Your task to perform on an android device: Open a new Chrome incognito window Image 0: 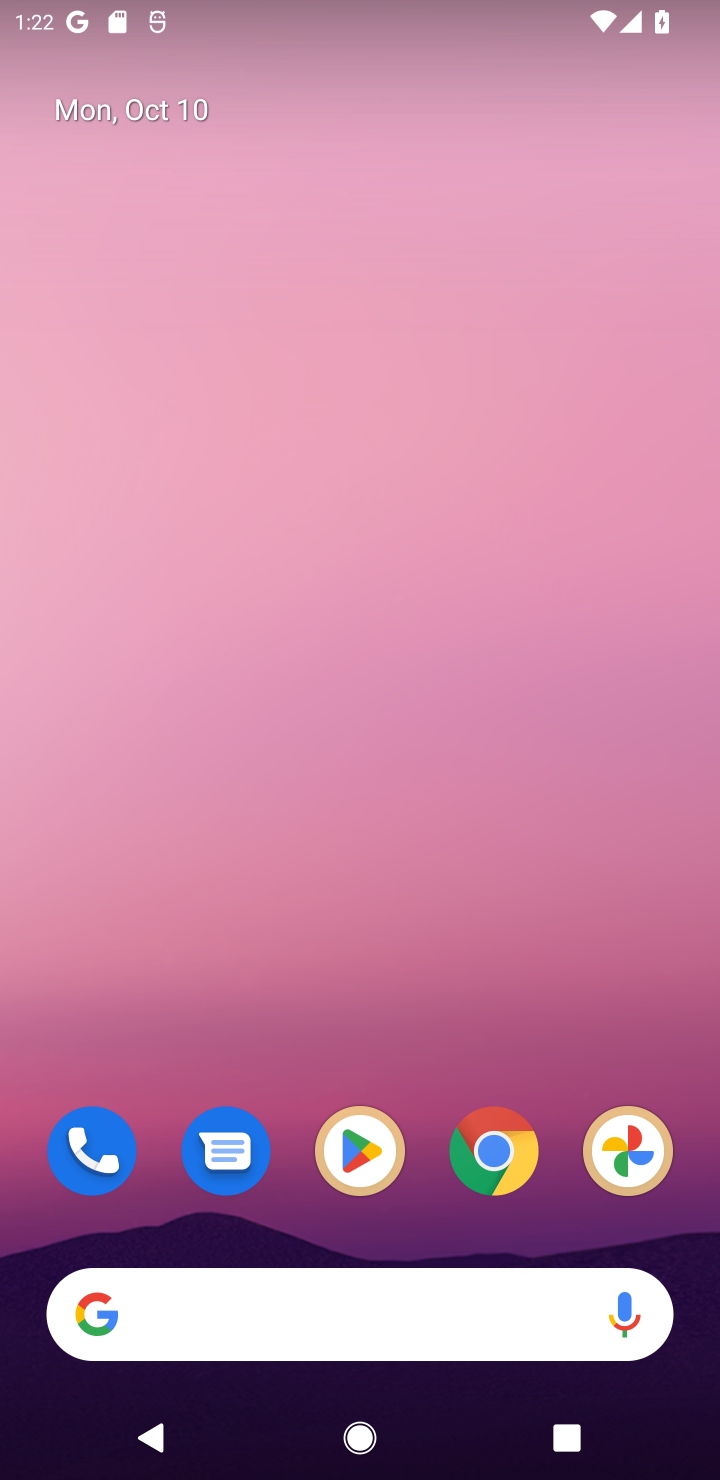
Step 0: click (475, 1146)
Your task to perform on an android device: Open a new Chrome incognito window Image 1: 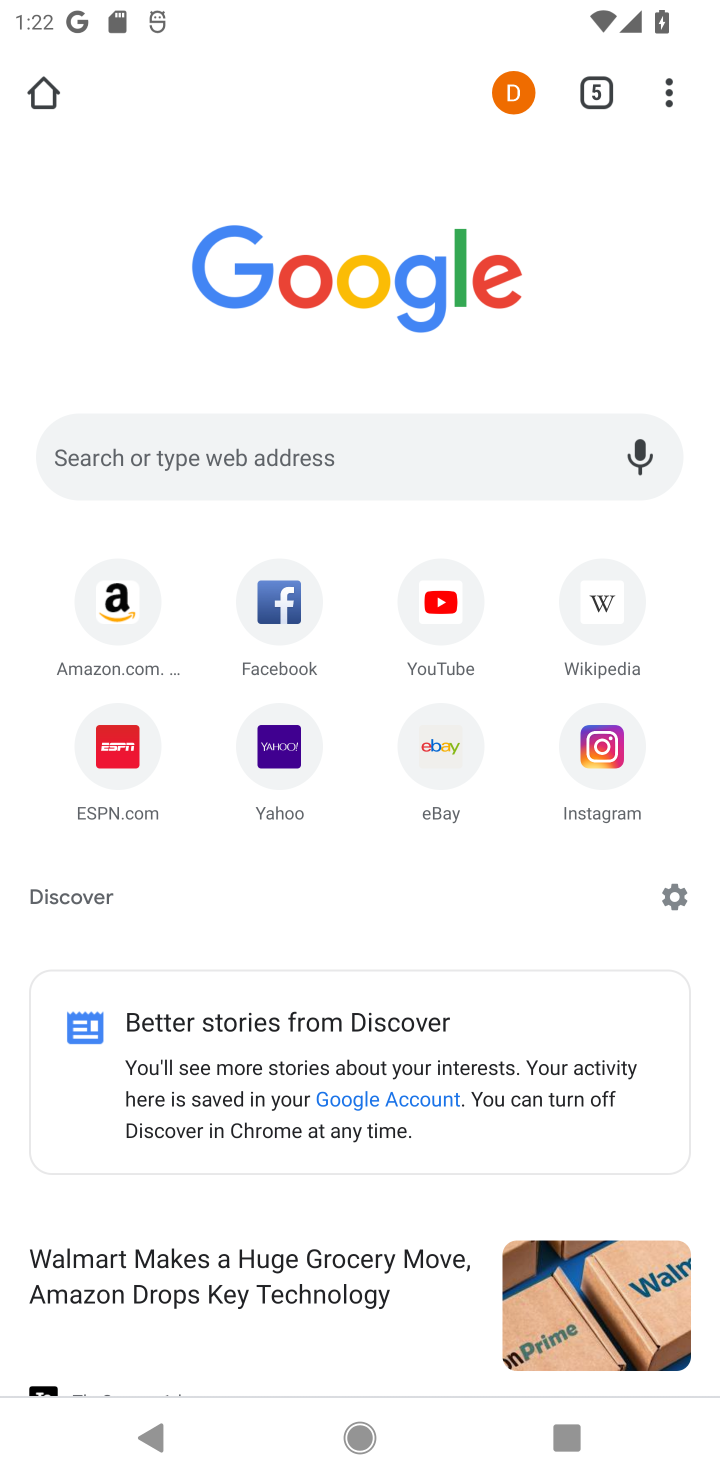
Step 1: click (668, 90)
Your task to perform on an android device: Open a new Chrome incognito window Image 2: 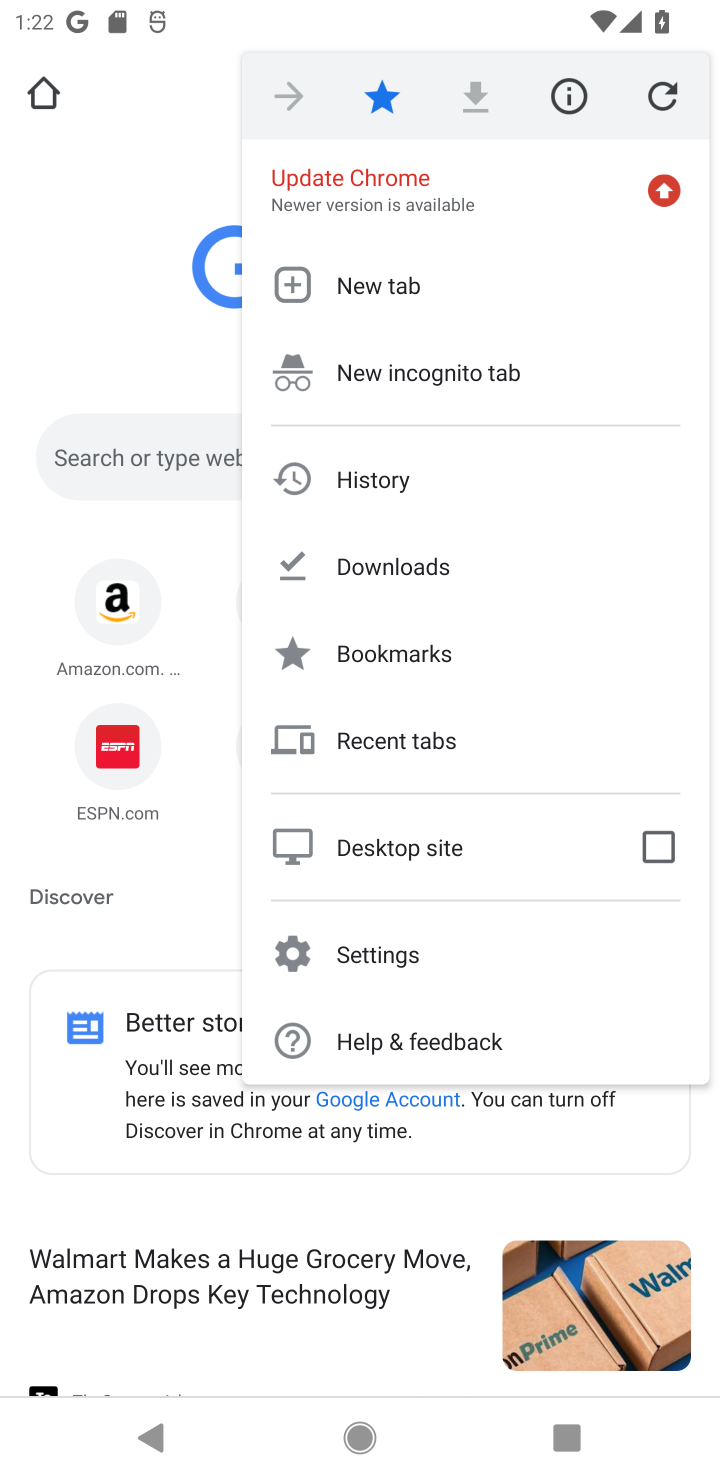
Step 2: click (398, 373)
Your task to perform on an android device: Open a new Chrome incognito window Image 3: 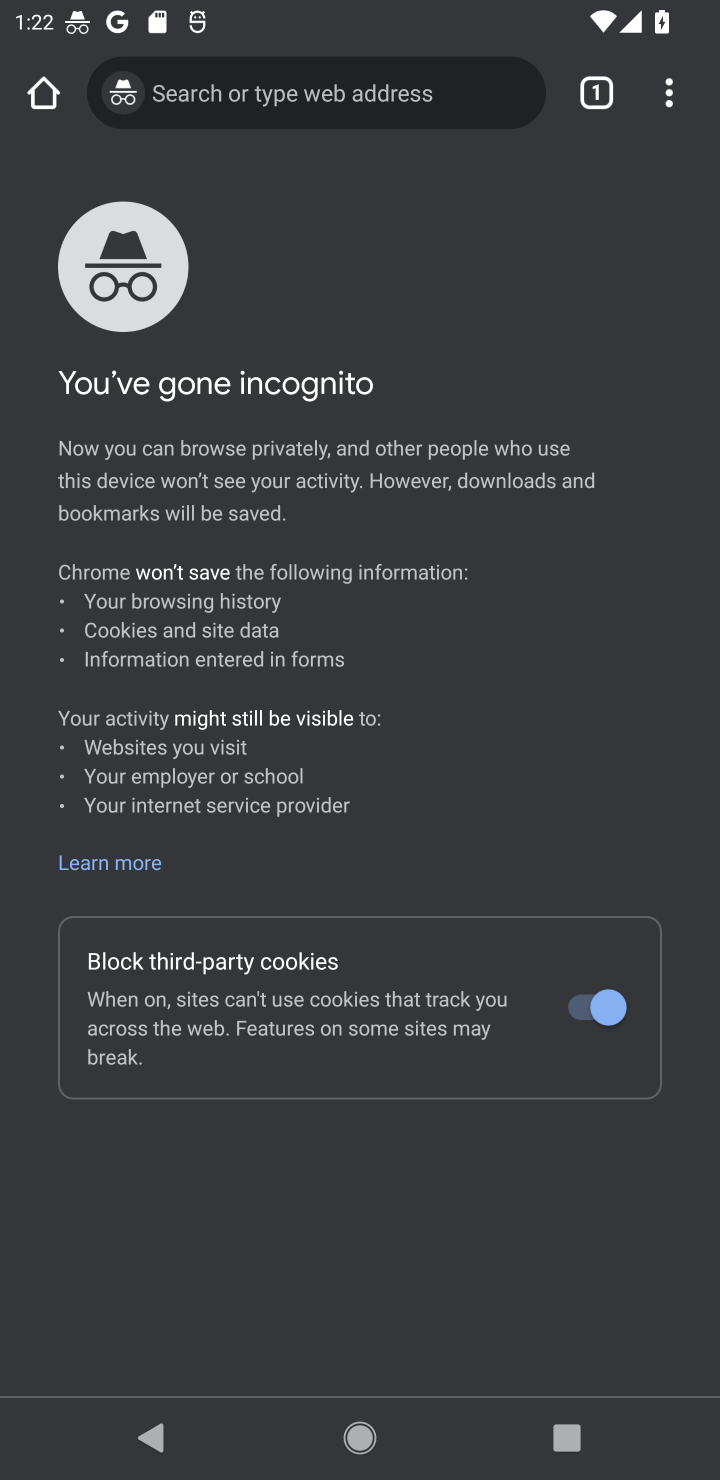
Step 3: task complete